Your task to perform on an android device: change the clock display to show seconds Image 0: 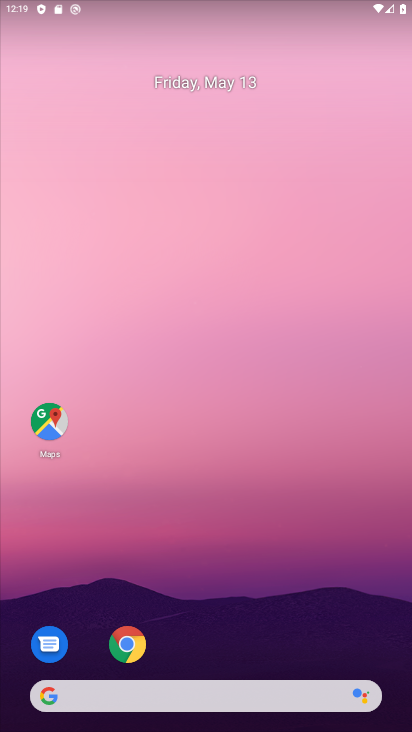
Step 0: drag from (248, 637) to (205, 81)
Your task to perform on an android device: change the clock display to show seconds Image 1: 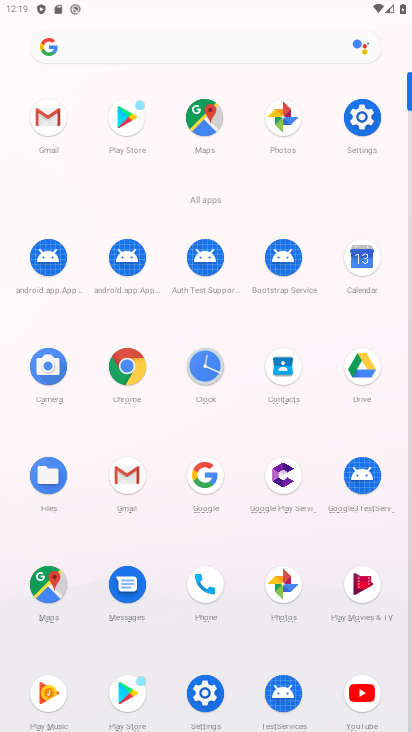
Step 1: click (208, 367)
Your task to perform on an android device: change the clock display to show seconds Image 2: 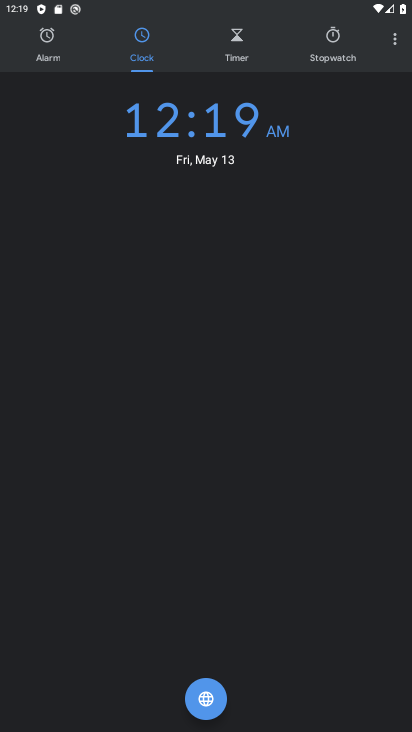
Step 2: click (398, 41)
Your task to perform on an android device: change the clock display to show seconds Image 3: 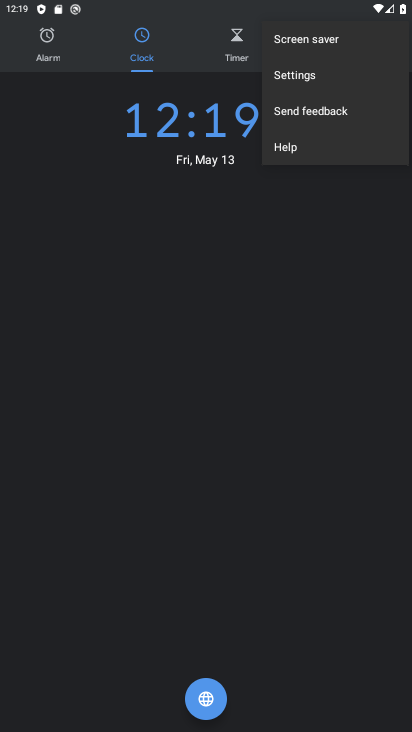
Step 3: click (312, 75)
Your task to perform on an android device: change the clock display to show seconds Image 4: 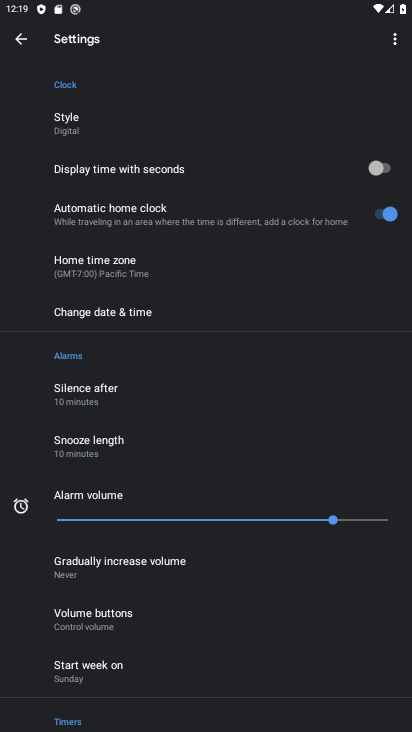
Step 4: click (383, 172)
Your task to perform on an android device: change the clock display to show seconds Image 5: 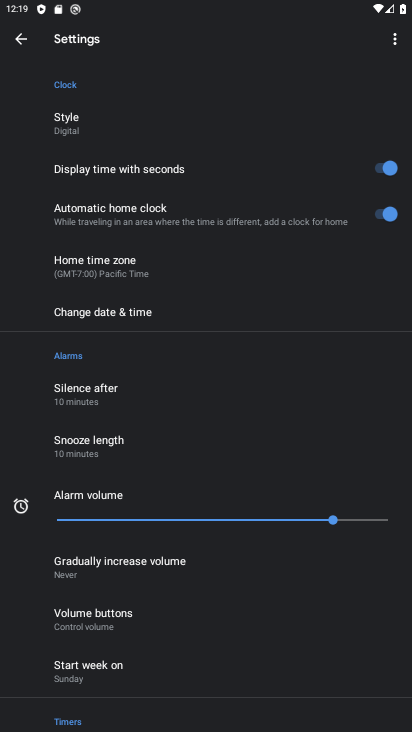
Step 5: task complete